Your task to perform on an android device: What's the weather? Image 0: 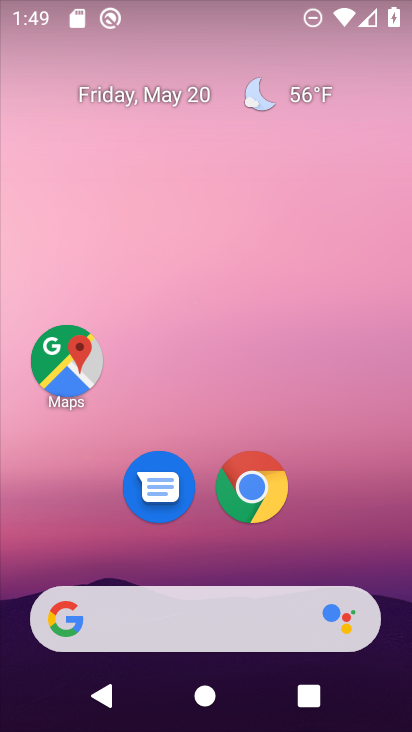
Step 0: press home button
Your task to perform on an android device: What's the weather? Image 1: 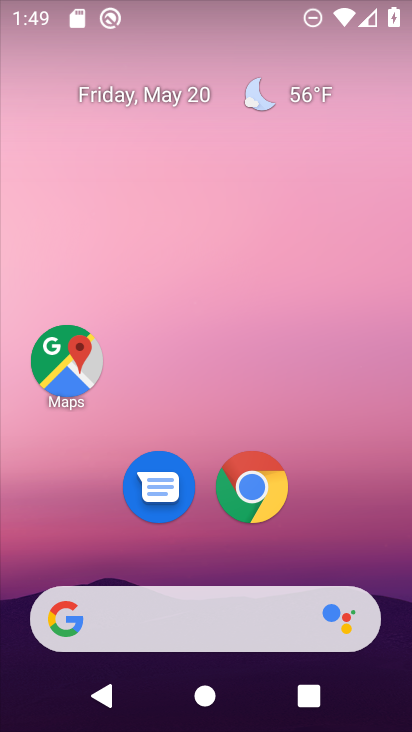
Step 1: drag from (204, 550) to (264, 97)
Your task to perform on an android device: What's the weather? Image 2: 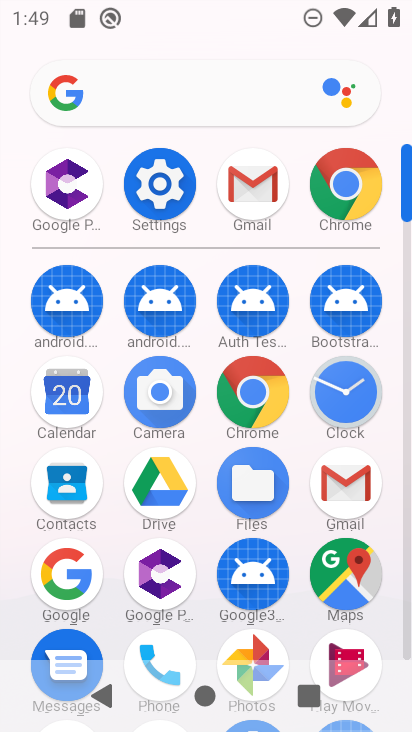
Step 2: press home button
Your task to perform on an android device: What's the weather? Image 3: 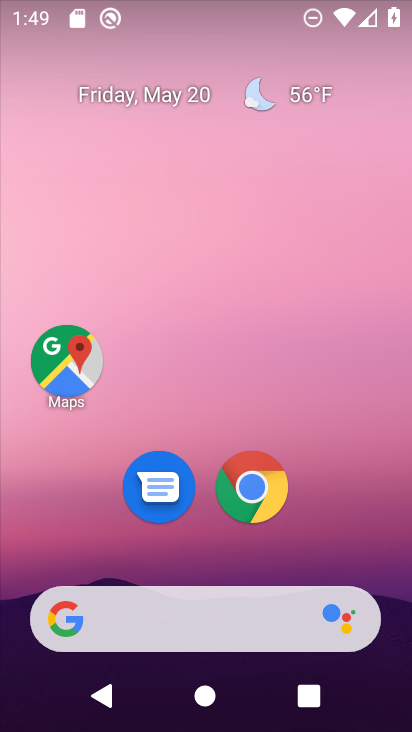
Step 3: click (292, 96)
Your task to perform on an android device: What's the weather? Image 4: 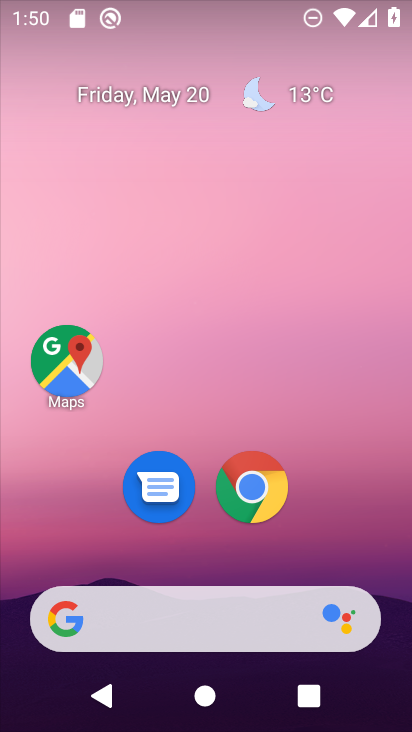
Step 4: click (316, 90)
Your task to perform on an android device: What's the weather? Image 5: 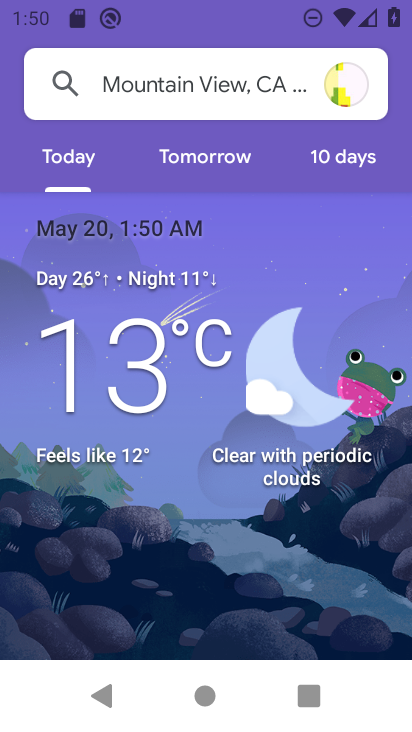
Step 5: drag from (219, 508) to (228, 288)
Your task to perform on an android device: What's the weather? Image 6: 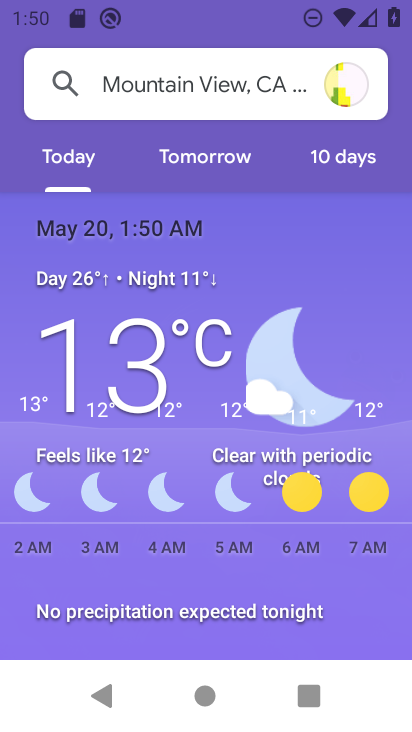
Step 6: drag from (363, 491) to (24, 487)
Your task to perform on an android device: What's the weather? Image 7: 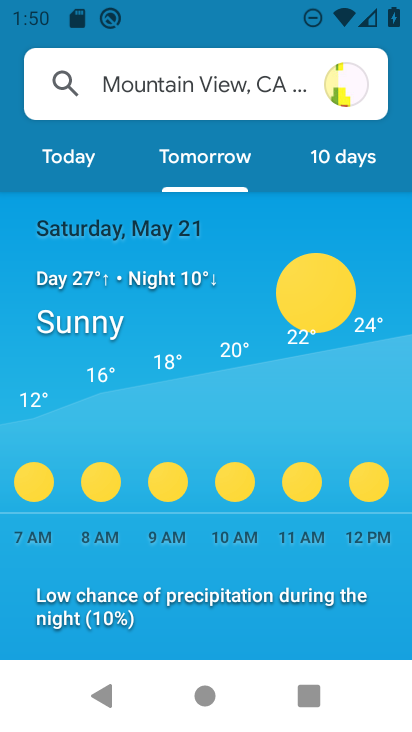
Step 7: click (60, 153)
Your task to perform on an android device: What's the weather? Image 8: 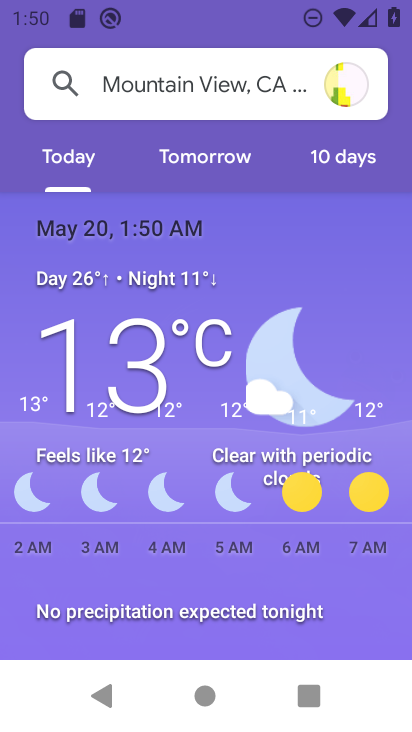
Step 8: task complete